Your task to perform on an android device: Find coffee shops on Maps Image 0: 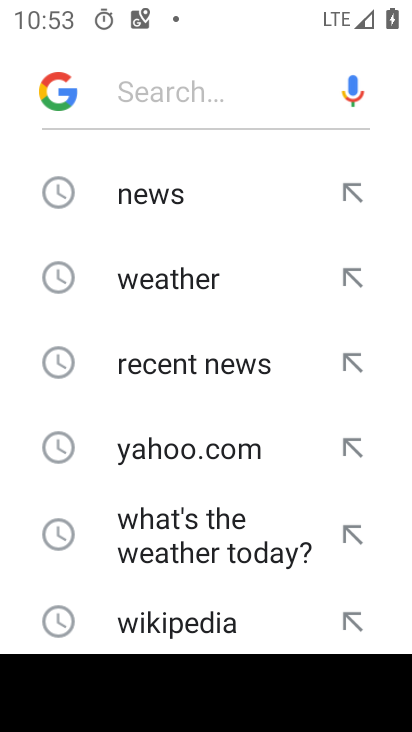
Step 0: press home button
Your task to perform on an android device: Find coffee shops on Maps Image 1: 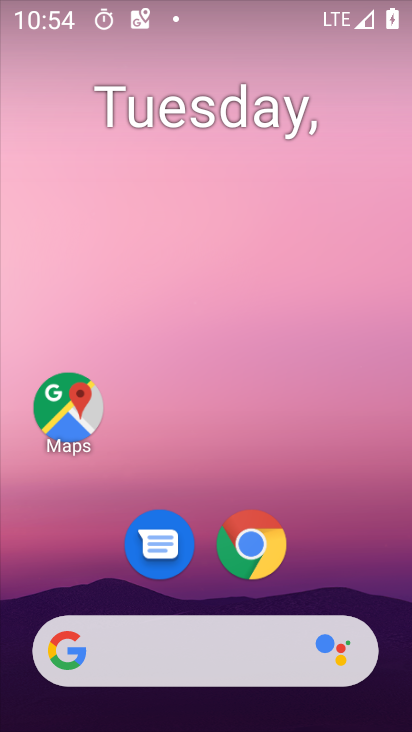
Step 1: click (78, 402)
Your task to perform on an android device: Find coffee shops on Maps Image 2: 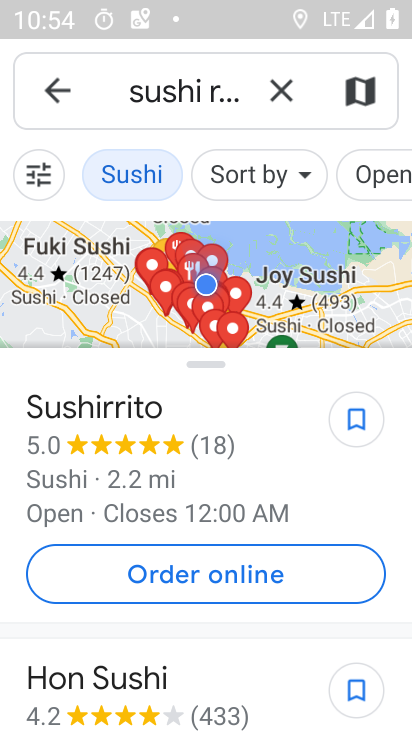
Step 2: click (279, 87)
Your task to perform on an android device: Find coffee shops on Maps Image 3: 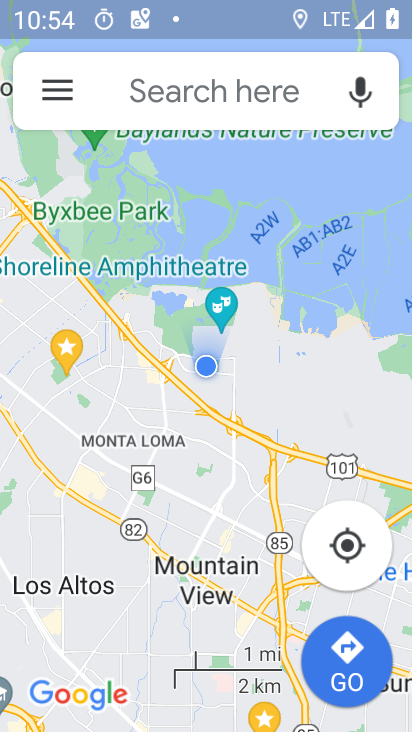
Step 3: click (230, 89)
Your task to perform on an android device: Find coffee shops on Maps Image 4: 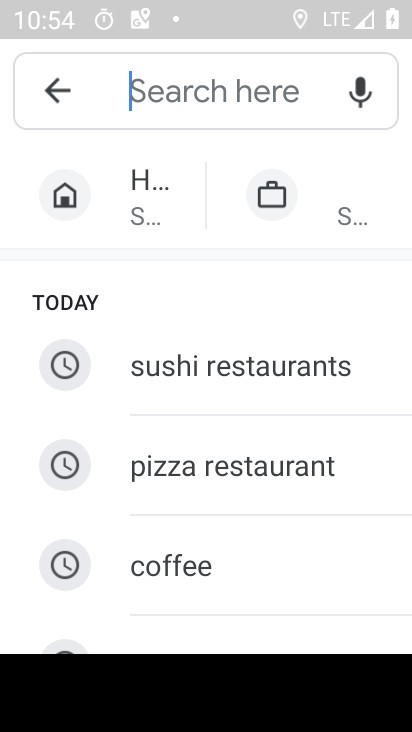
Step 4: click (229, 563)
Your task to perform on an android device: Find coffee shops on Maps Image 5: 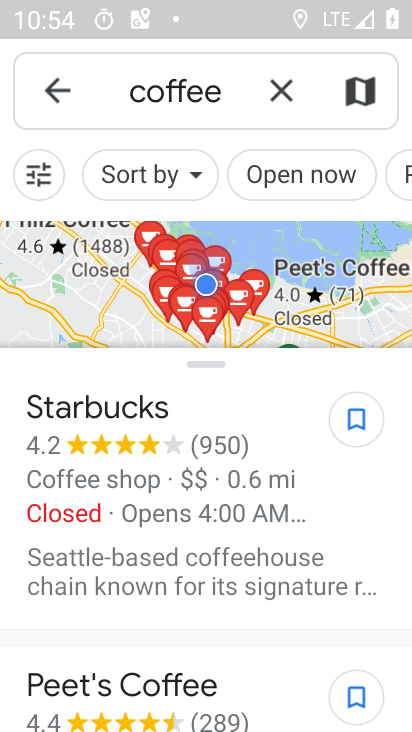
Step 5: task complete